Your task to perform on an android device: turn on showing notifications on the lock screen Image 0: 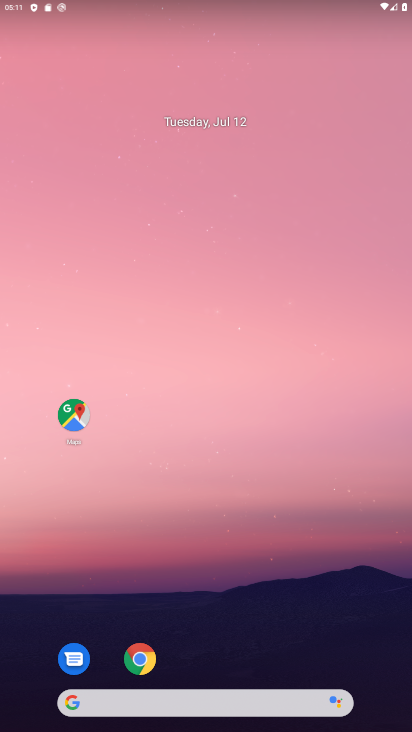
Step 0: drag from (376, 650) to (291, 163)
Your task to perform on an android device: turn on showing notifications on the lock screen Image 1: 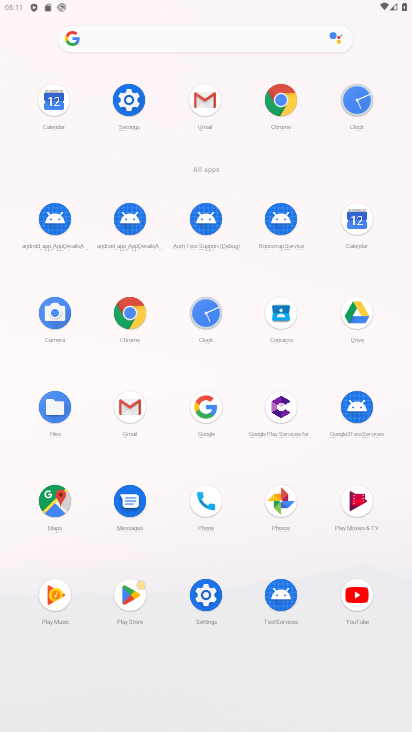
Step 1: click (205, 593)
Your task to perform on an android device: turn on showing notifications on the lock screen Image 2: 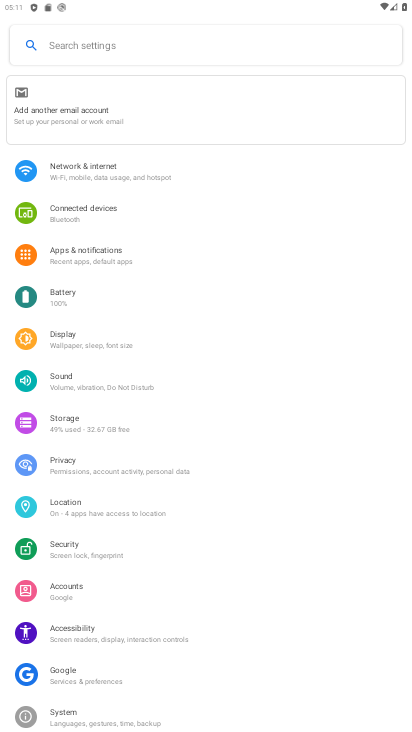
Step 2: click (87, 253)
Your task to perform on an android device: turn on showing notifications on the lock screen Image 3: 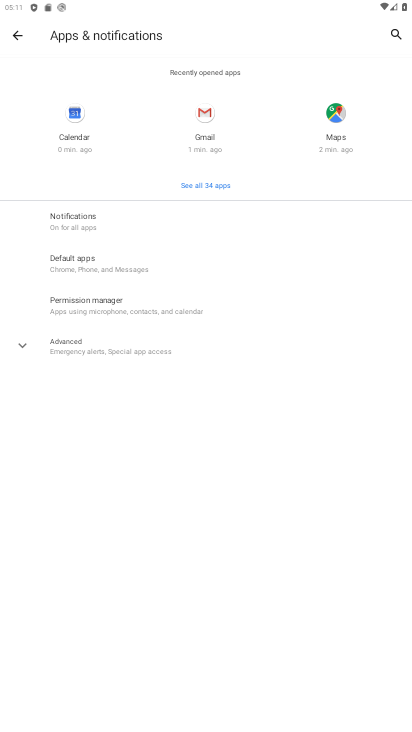
Step 3: click (72, 222)
Your task to perform on an android device: turn on showing notifications on the lock screen Image 4: 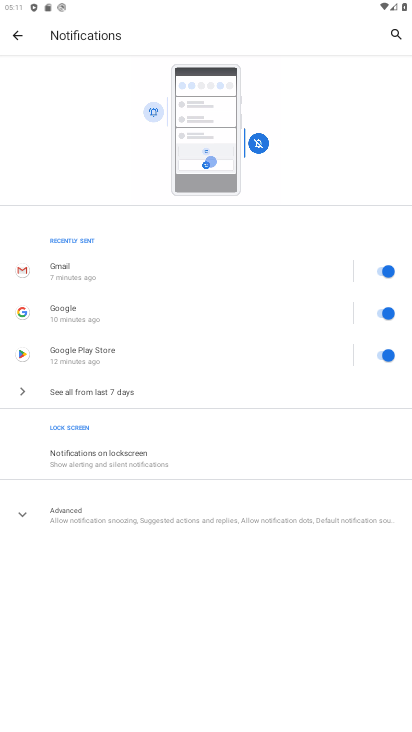
Step 4: click (92, 451)
Your task to perform on an android device: turn on showing notifications on the lock screen Image 5: 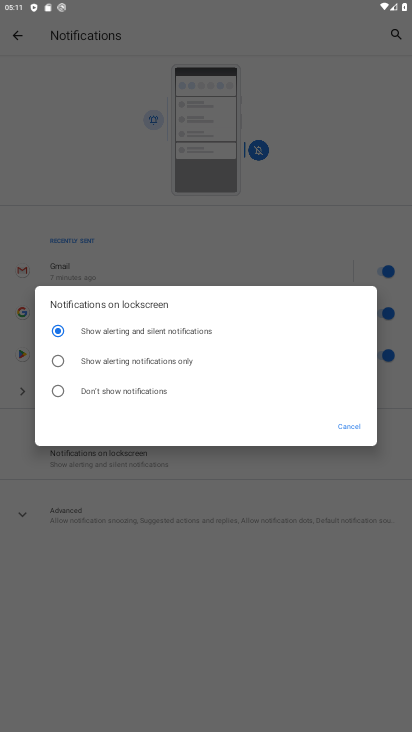
Step 5: task complete